Your task to perform on an android device: choose inbox layout in the gmail app Image 0: 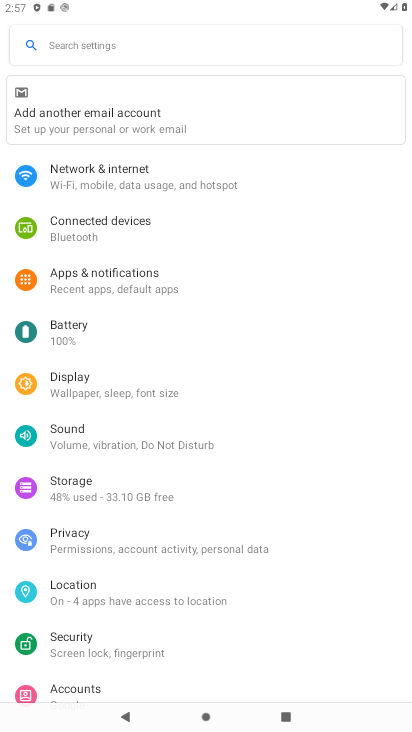
Step 0: press home button
Your task to perform on an android device: choose inbox layout in the gmail app Image 1: 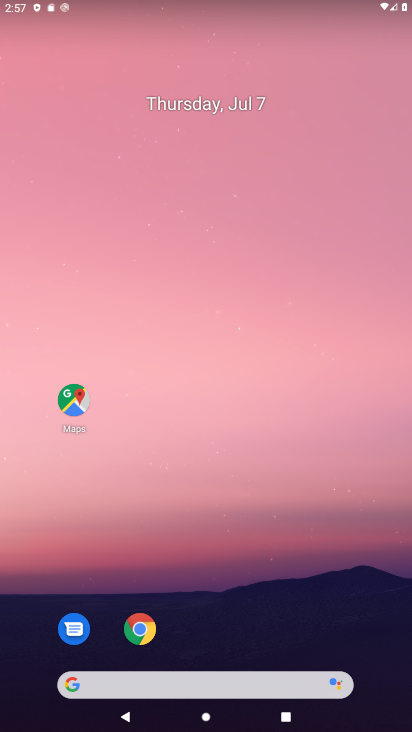
Step 1: drag from (224, 661) to (231, 401)
Your task to perform on an android device: choose inbox layout in the gmail app Image 2: 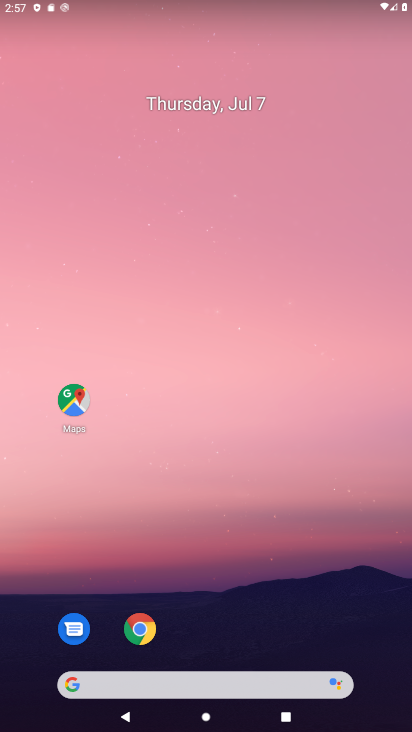
Step 2: drag from (231, 641) to (234, 236)
Your task to perform on an android device: choose inbox layout in the gmail app Image 3: 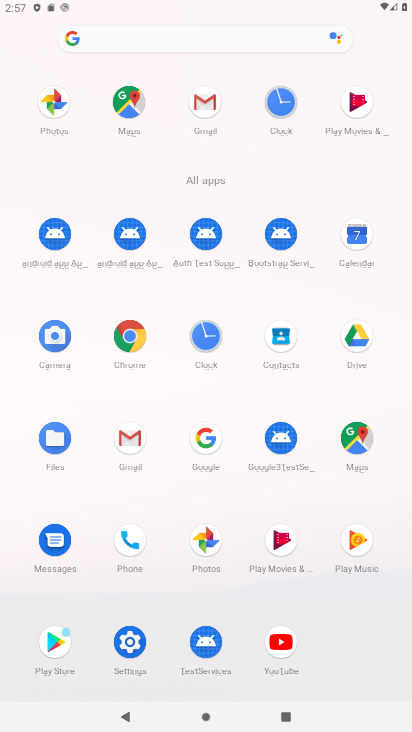
Step 3: click (201, 98)
Your task to perform on an android device: choose inbox layout in the gmail app Image 4: 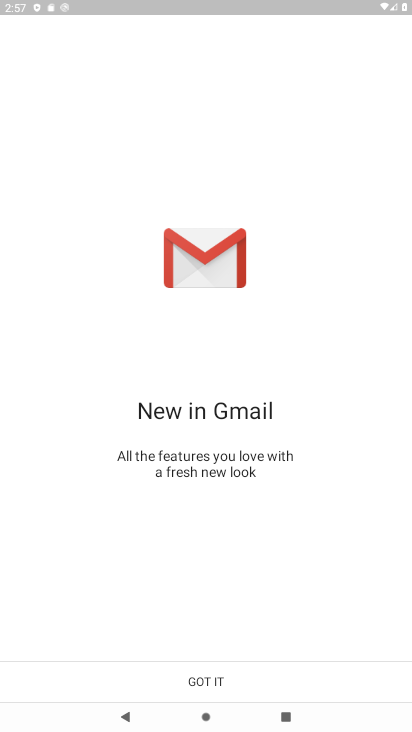
Step 4: click (178, 678)
Your task to perform on an android device: choose inbox layout in the gmail app Image 5: 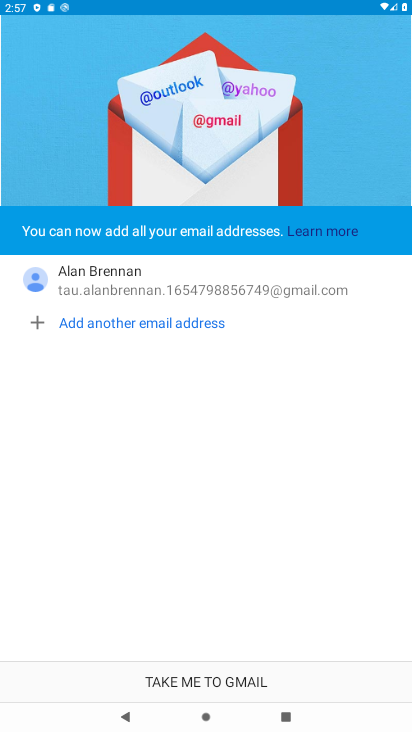
Step 5: click (178, 678)
Your task to perform on an android device: choose inbox layout in the gmail app Image 6: 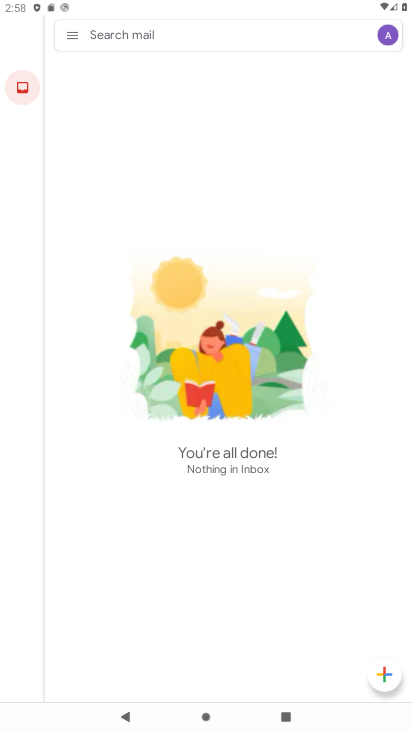
Step 6: click (75, 32)
Your task to perform on an android device: choose inbox layout in the gmail app Image 7: 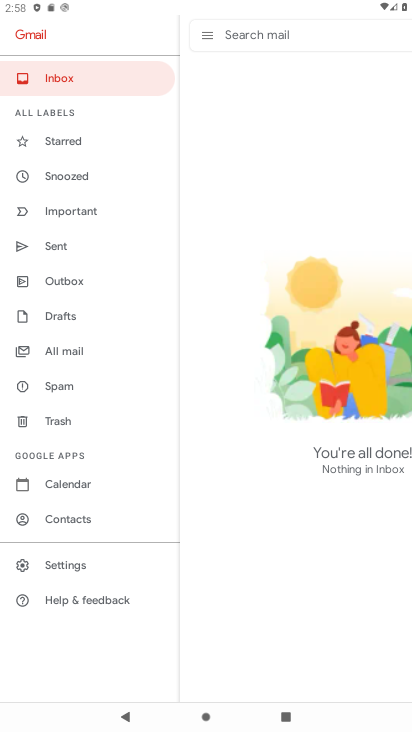
Step 7: click (74, 81)
Your task to perform on an android device: choose inbox layout in the gmail app Image 8: 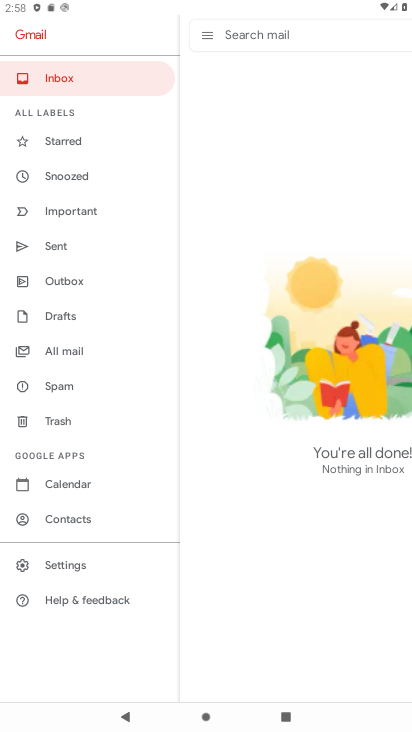
Step 8: click (89, 80)
Your task to perform on an android device: choose inbox layout in the gmail app Image 9: 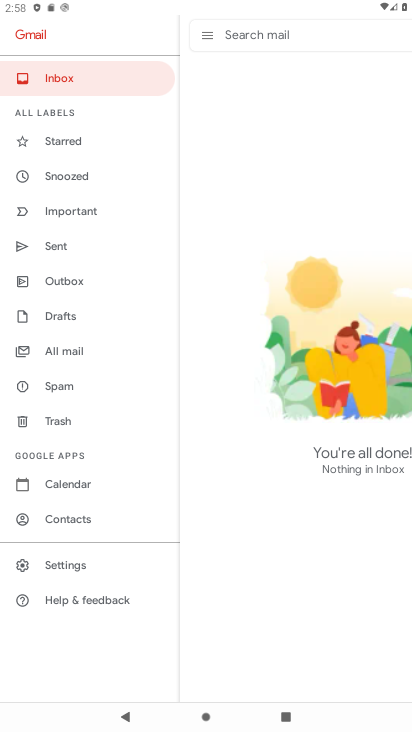
Step 9: task complete